Your task to perform on an android device: Search for acer predator on target, select the first entry, add it to the cart, then select checkout. Image 0: 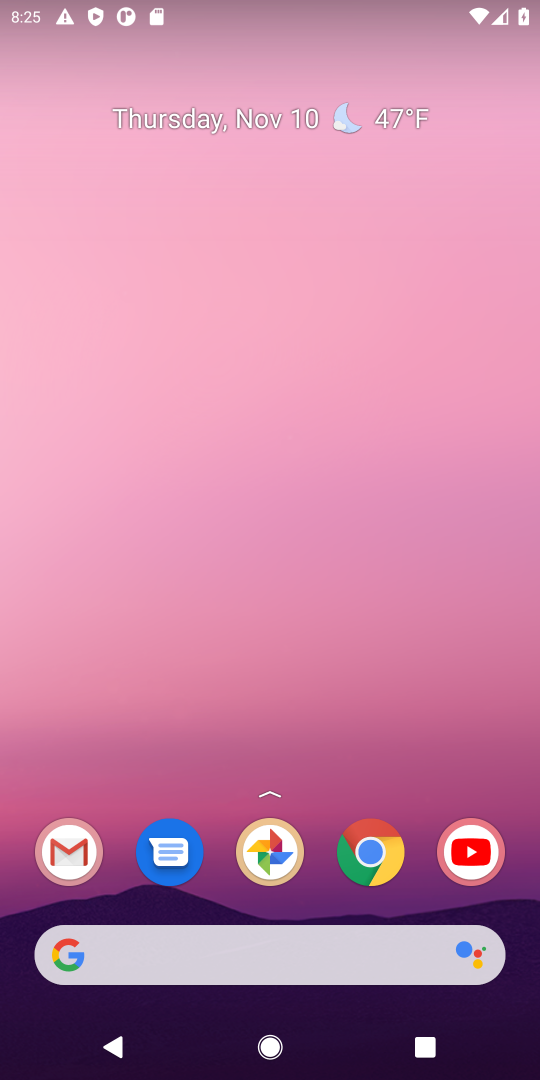
Step 0: click (370, 846)
Your task to perform on an android device: Search for acer predator on target, select the first entry, add it to the cart, then select checkout. Image 1: 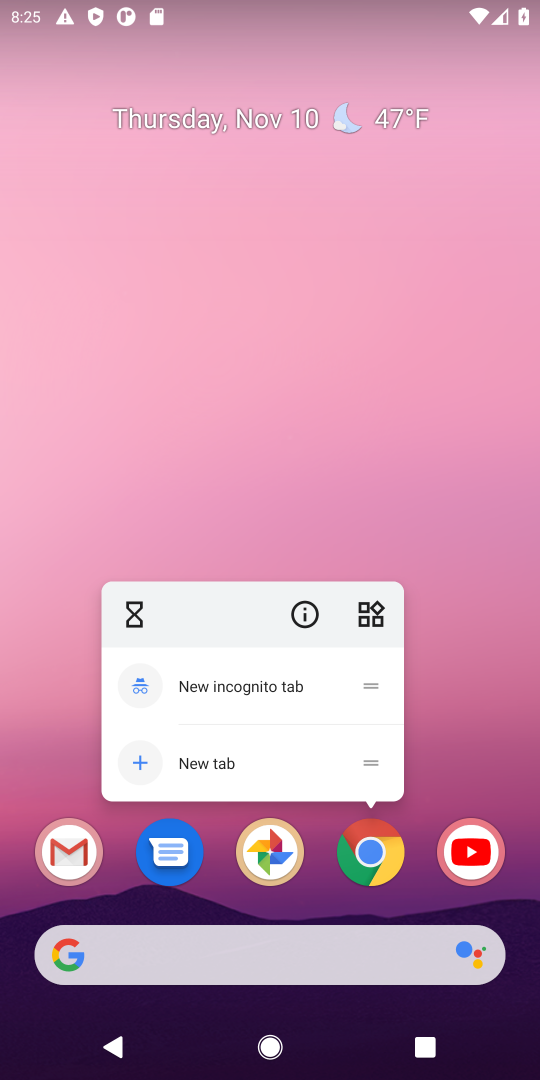
Step 1: click (370, 846)
Your task to perform on an android device: Search for acer predator on target, select the first entry, add it to the cart, then select checkout. Image 2: 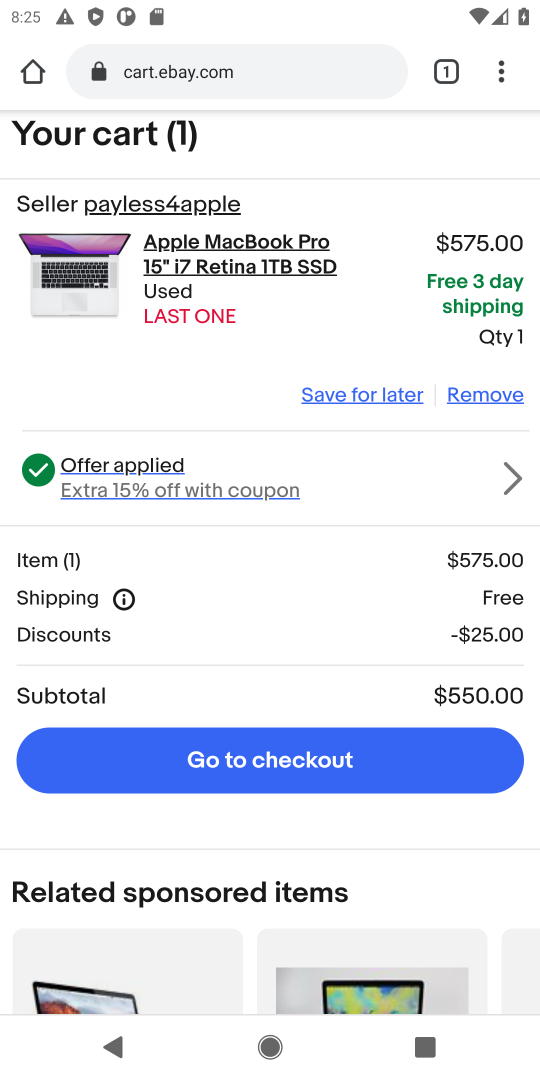
Step 2: click (253, 74)
Your task to perform on an android device: Search for acer predator on target, select the first entry, add it to the cart, then select checkout. Image 3: 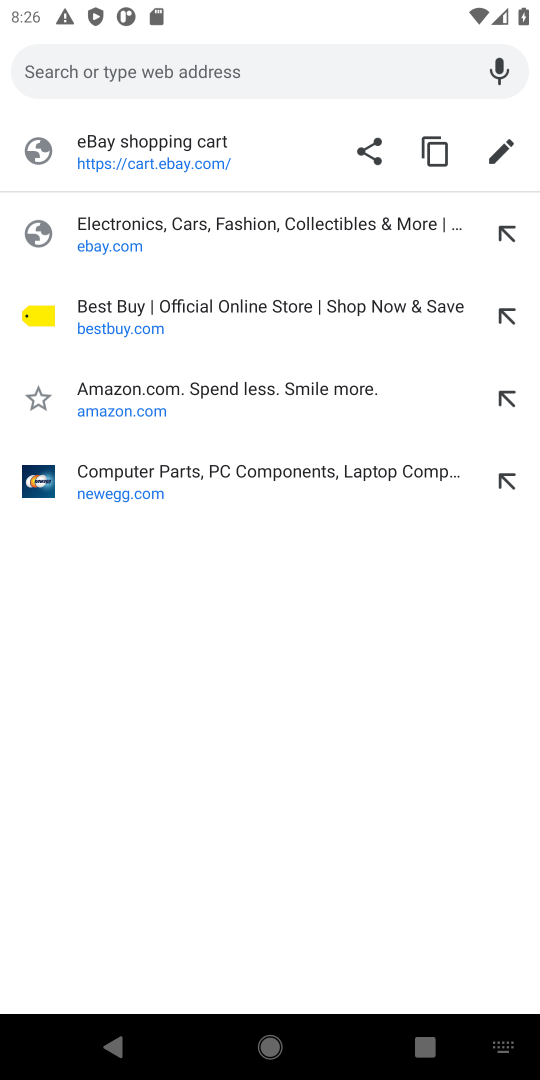
Step 3: type "target"
Your task to perform on an android device: Search for acer predator on target, select the first entry, add it to the cart, then select checkout. Image 4: 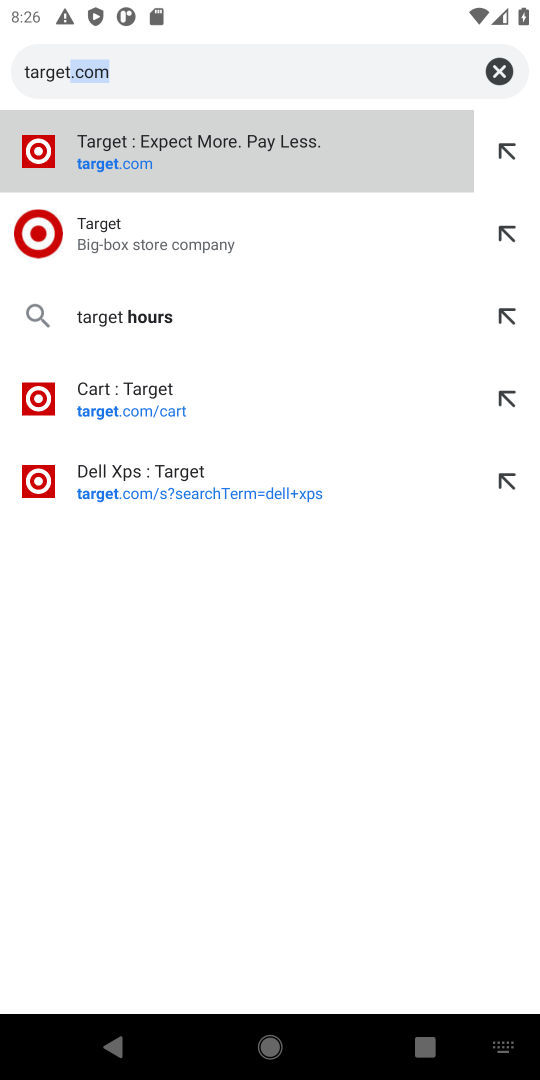
Step 4: press enter
Your task to perform on an android device: Search for acer predator on target, select the first entry, add it to the cart, then select checkout. Image 5: 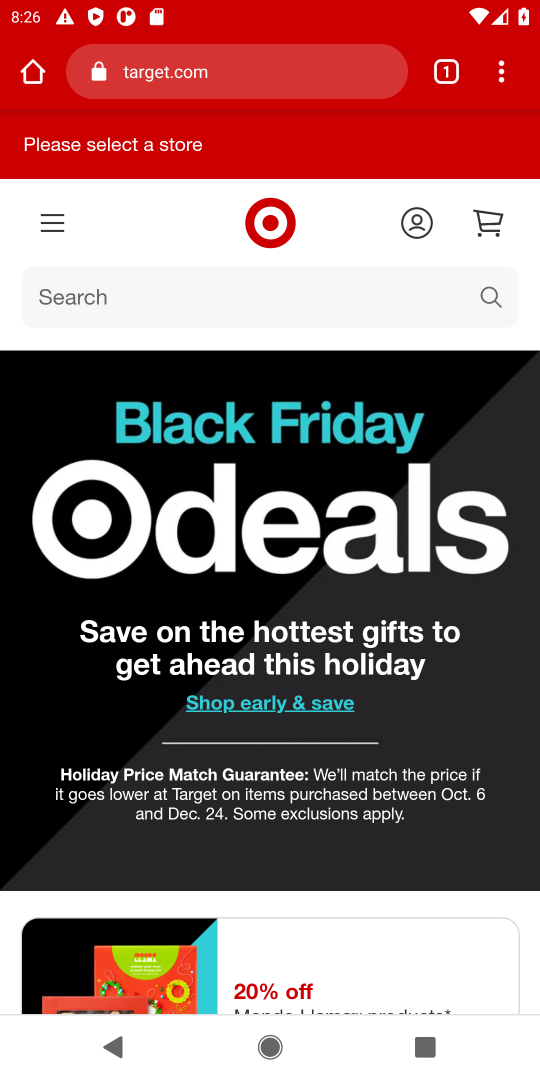
Step 5: click (109, 291)
Your task to perform on an android device: Search for acer predator on target, select the first entry, add it to the cart, then select checkout. Image 6: 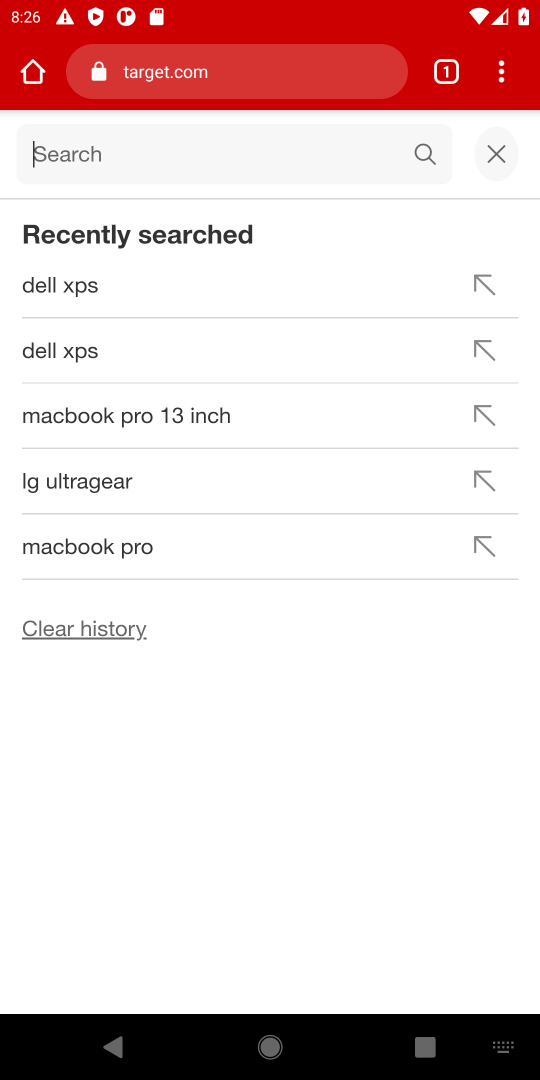
Step 6: type "acer predator "
Your task to perform on an android device: Search for acer predator on target, select the first entry, add it to the cart, then select checkout. Image 7: 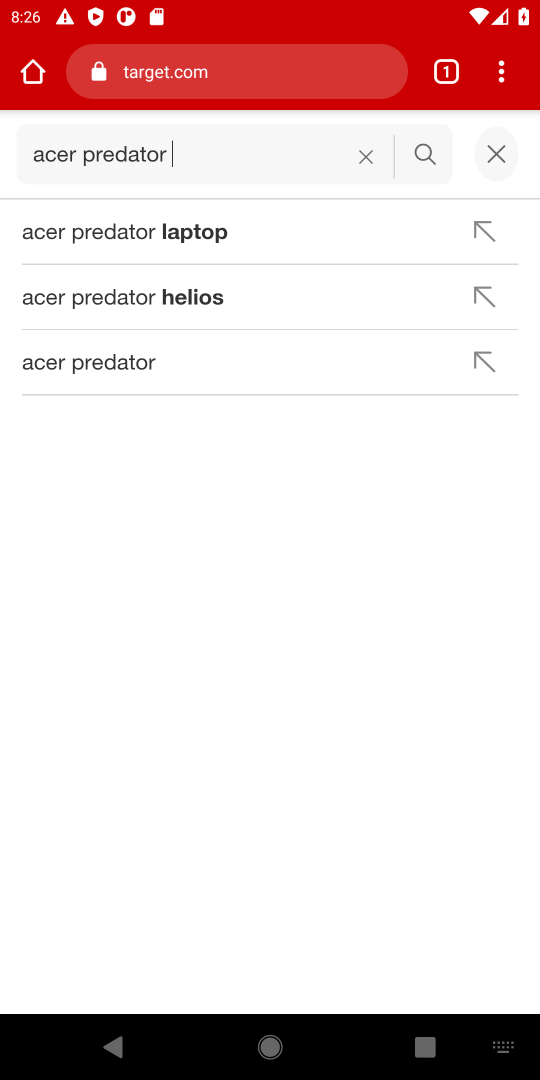
Step 7: press enter
Your task to perform on an android device: Search for acer predator on target, select the first entry, add it to the cart, then select checkout. Image 8: 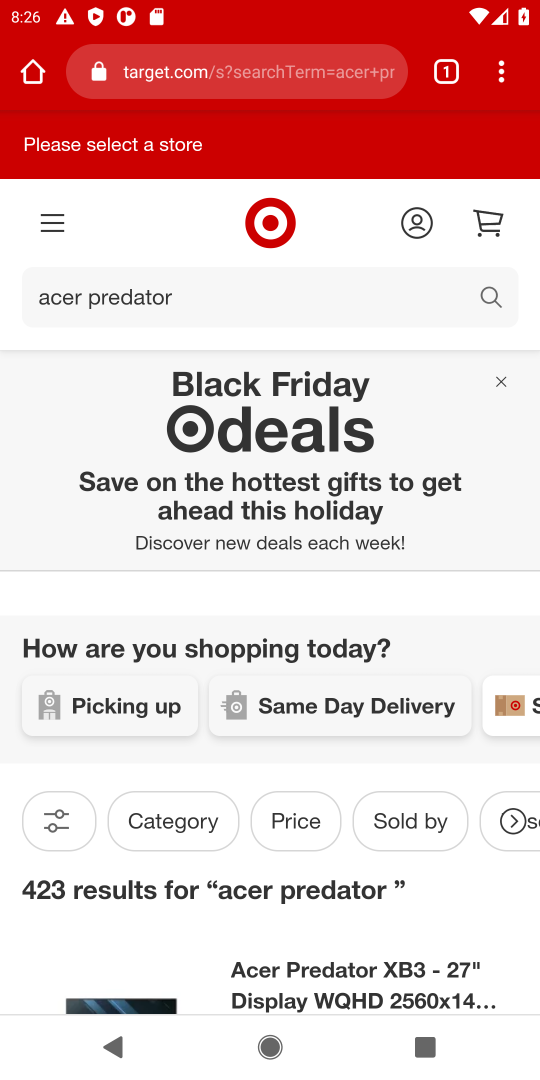
Step 8: drag from (298, 936) to (454, 476)
Your task to perform on an android device: Search for acer predator on target, select the first entry, add it to the cart, then select checkout. Image 9: 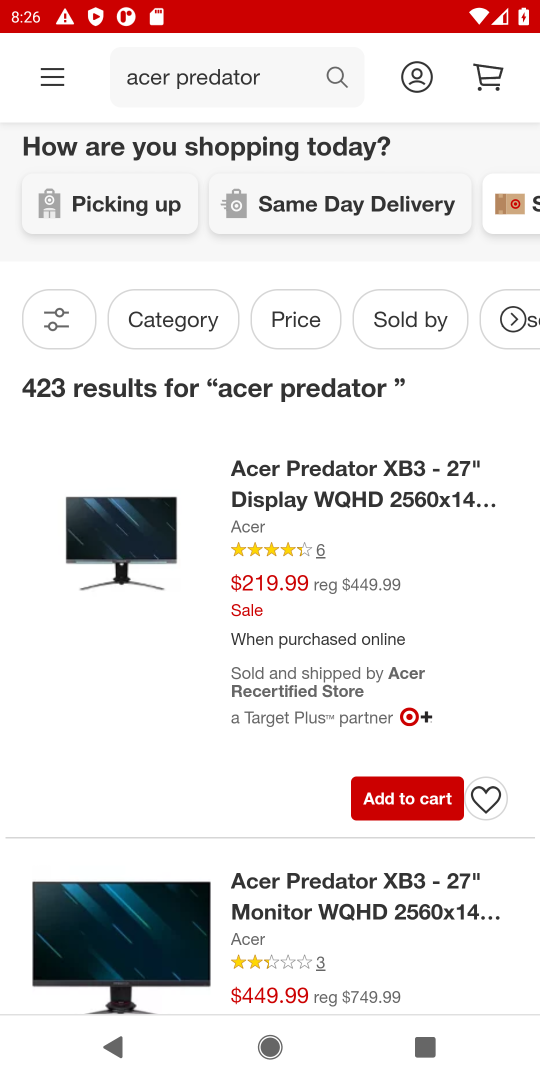
Step 9: click (407, 805)
Your task to perform on an android device: Search for acer predator on target, select the first entry, add it to the cart, then select checkout. Image 10: 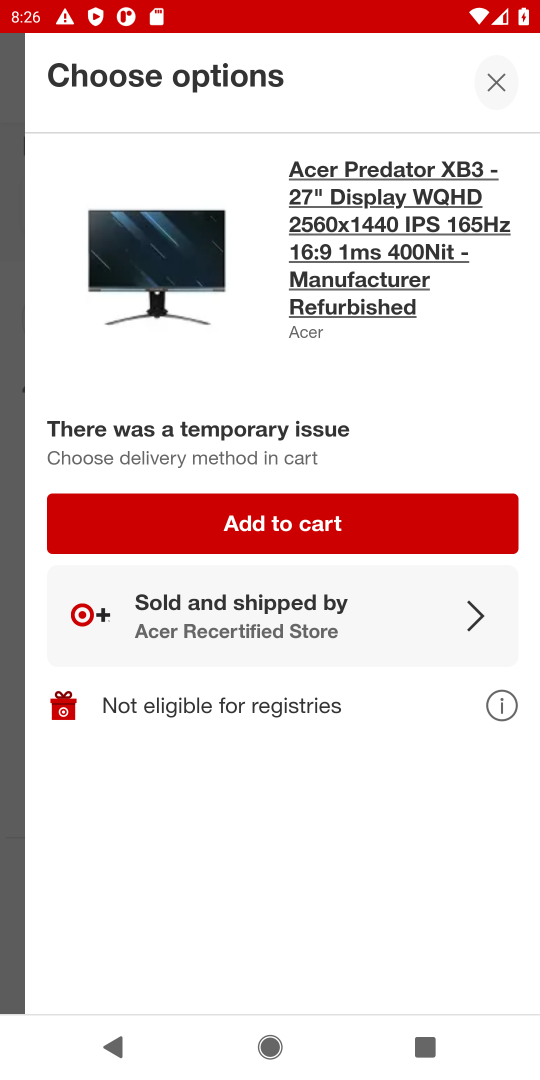
Step 10: click (272, 525)
Your task to perform on an android device: Search for acer predator on target, select the first entry, add it to the cart, then select checkout. Image 11: 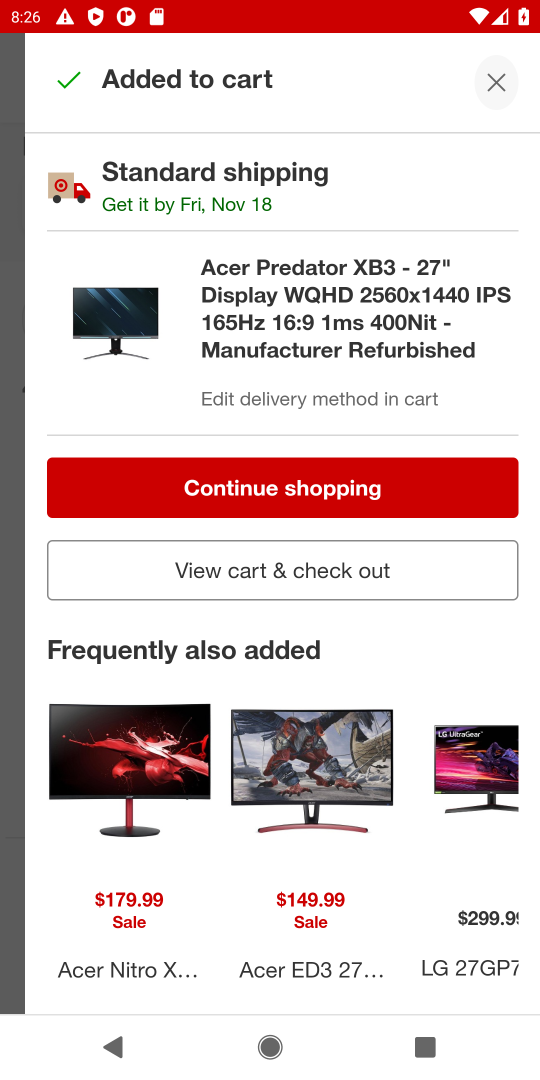
Step 11: click (316, 567)
Your task to perform on an android device: Search for acer predator on target, select the first entry, add it to the cart, then select checkout. Image 12: 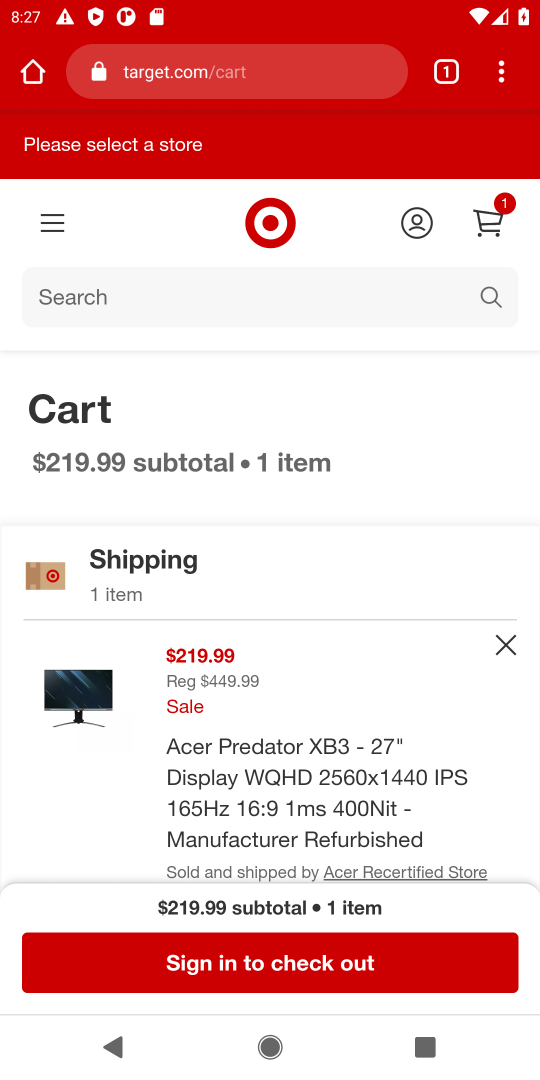
Step 12: click (313, 957)
Your task to perform on an android device: Search for acer predator on target, select the first entry, add it to the cart, then select checkout. Image 13: 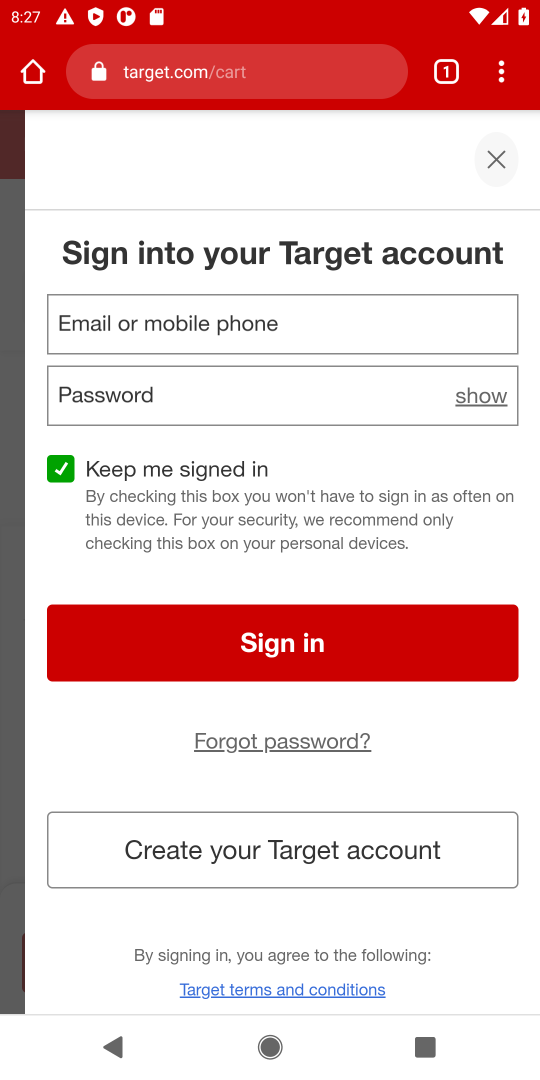
Step 13: task complete